Your task to perform on an android device: What is the recent news? Image 0: 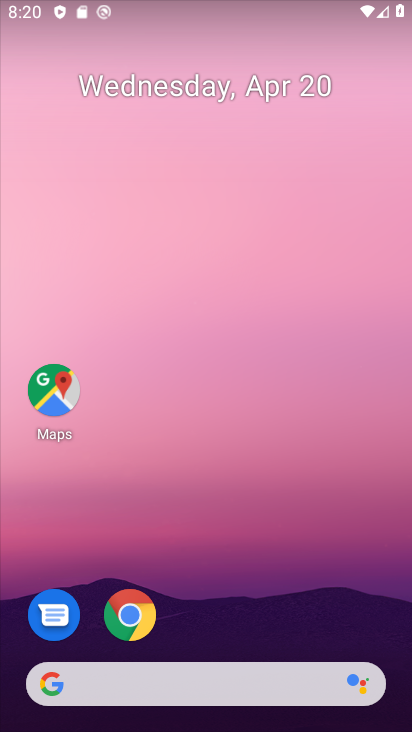
Step 0: click (100, 659)
Your task to perform on an android device: What is the recent news? Image 1: 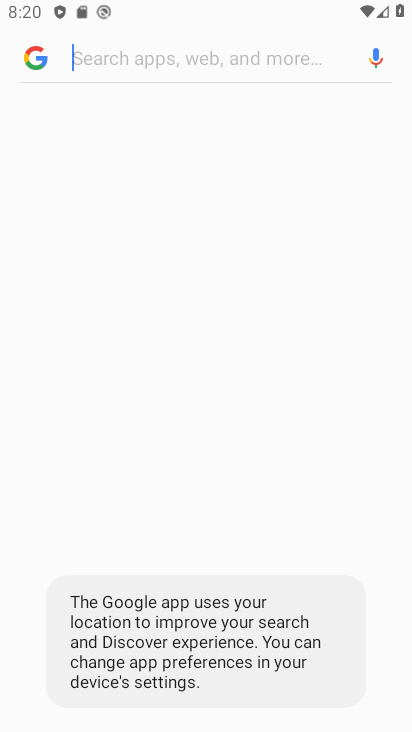
Step 1: click (132, 696)
Your task to perform on an android device: What is the recent news? Image 2: 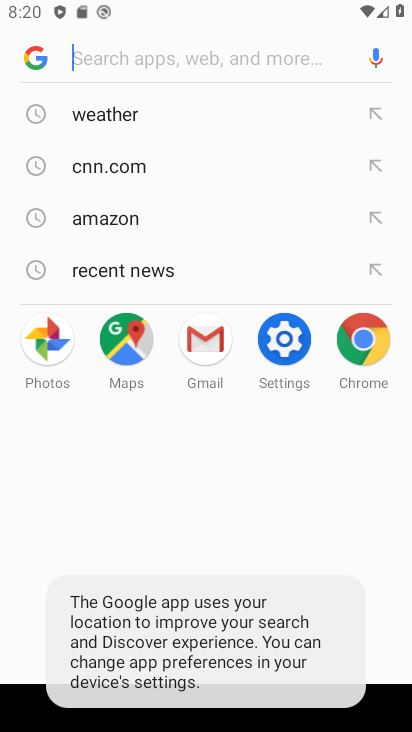
Step 2: click (204, 530)
Your task to perform on an android device: What is the recent news? Image 3: 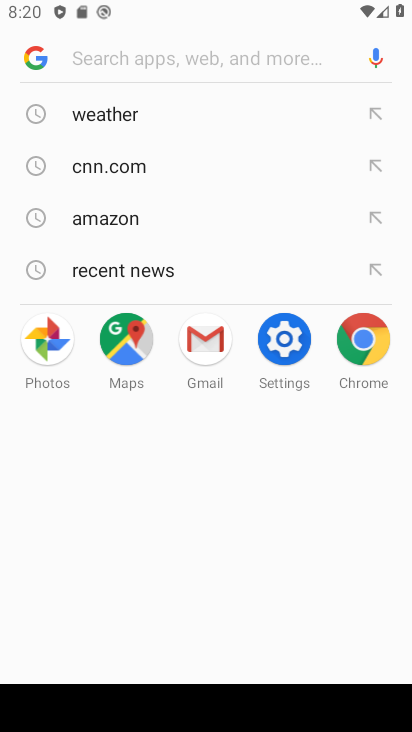
Step 3: click (181, 47)
Your task to perform on an android device: What is the recent news? Image 4: 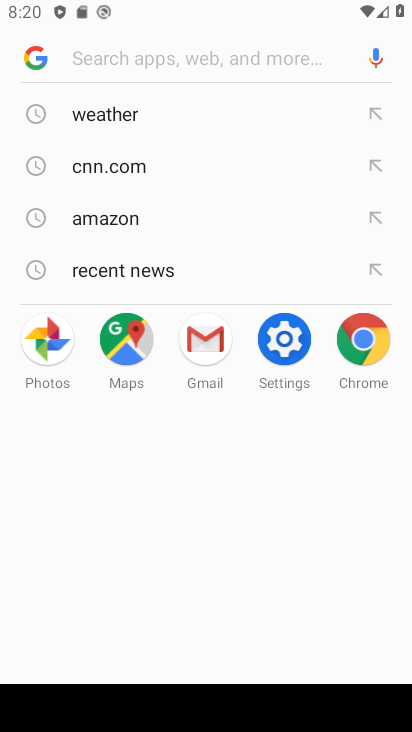
Step 4: type "recent news"
Your task to perform on an android device: What is the recent news? Image 5: 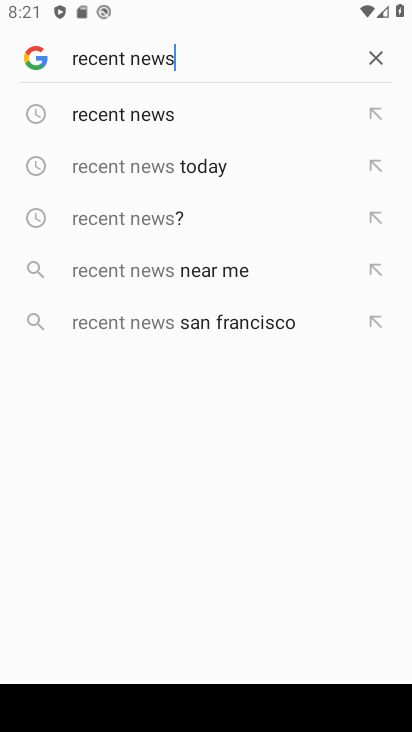
Step 5: click (191, 107)
Your task to perform on an android device: What is the recent news? Image 6: 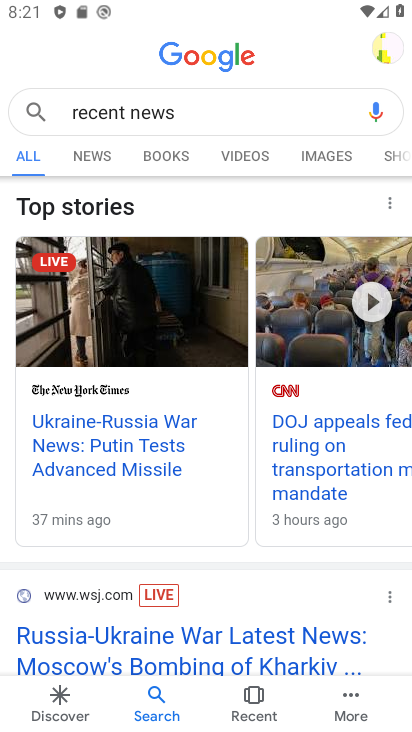
Step 6: task complete